Your task to perform on an android device: Search for bose soundlink on newegg, select the first entry, add it to the cart, then select checkout. Image 0: 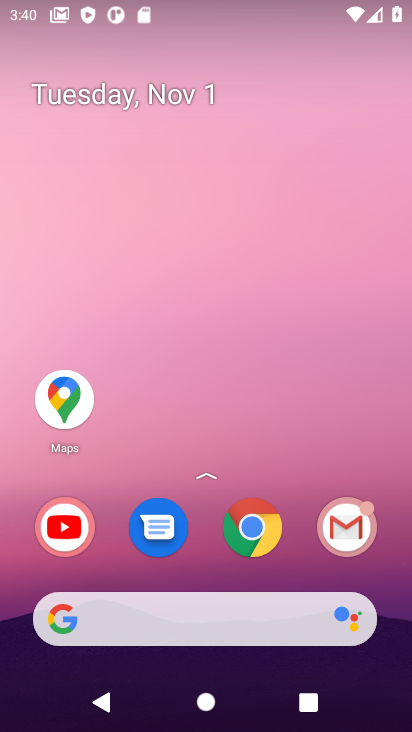
Step 0: click (182, 607)
Your task to perform on an android device: Search for bose soundlink on newegg, select the first entry, add it to the cart, then select checkout. Image 1: 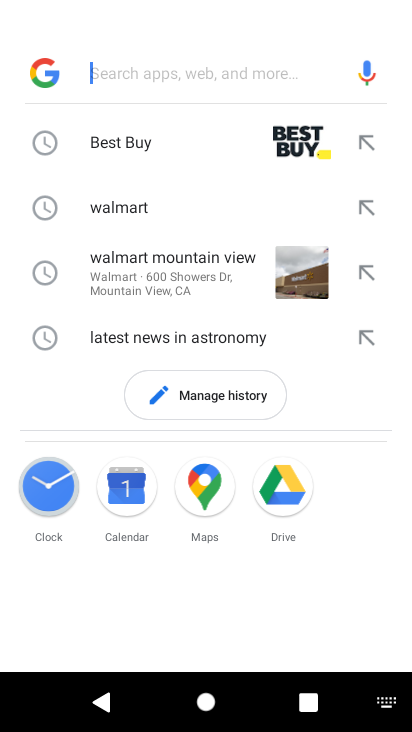
Step 1: type "newegg"
Your task to perform on an android device: Search for bose soundlink on newegg, select the first entry, add it to the cart, then select checkout. Image 2: 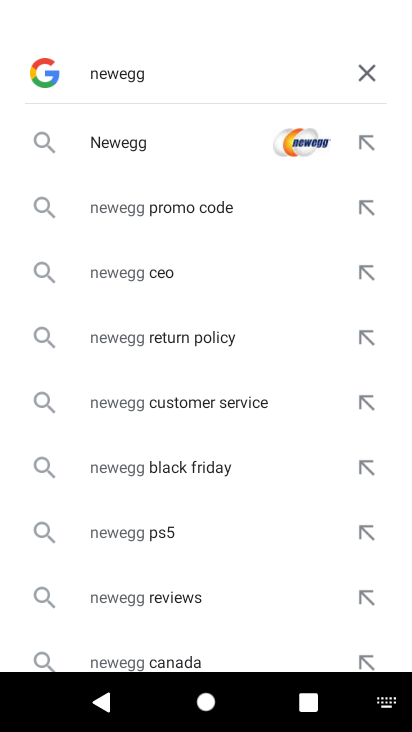
Step 2: click (150, 156)
Your task to perform on an android device: Search for bose soundlink on newegg, select the first entry, add it to the cart, then select checkout. Image 3: 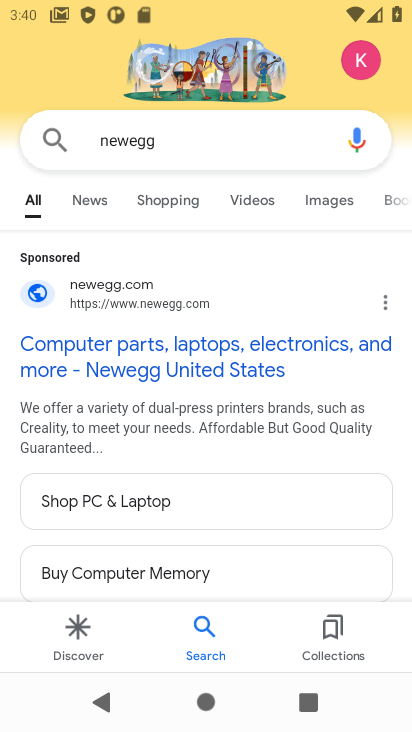
Step 3: click (109, 296)
Your task to perform on an android device: Search for bose soundlink on newegg, select the first entry, add it to the cart, then select checkout. Image 4: 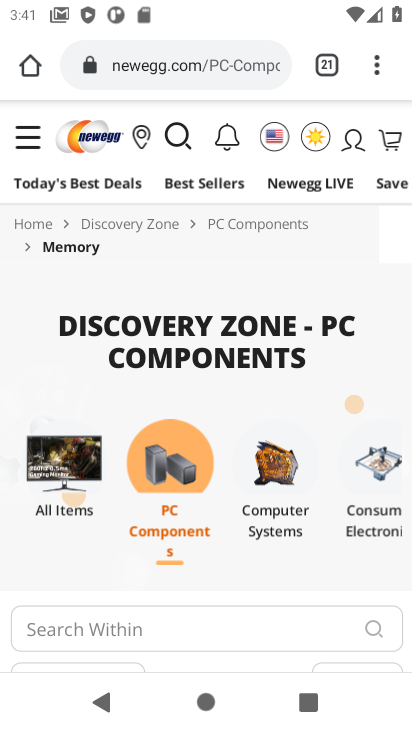
Step 4: click (177, 132)
Your task to perform on an android device: Search for bose soundlink on newegg, select the first entry, add it to the cart, then select checkout. Image 5: 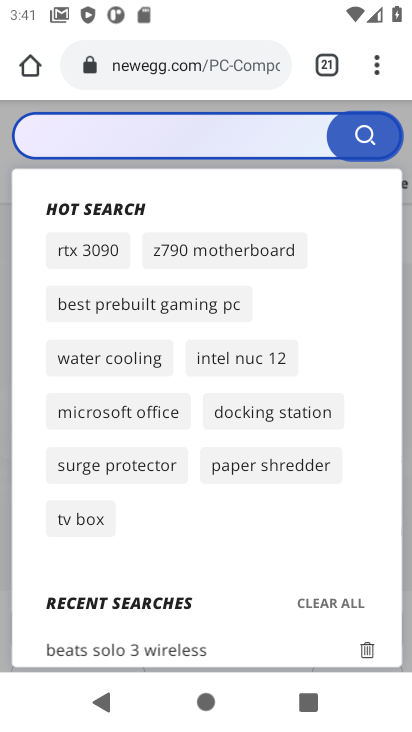
Step 5: click (251, 128)
Your task to perform on an android device: Search for bose soundlink on newegg, select the first entry, add it to the cart, then select checkout. Image 6: 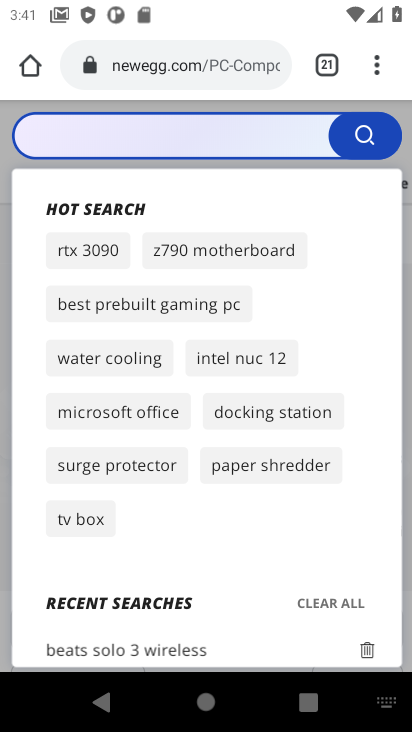
Step 6: type " bose soundlink "
Your task to perform on an android device: Search for bose soundlink on newegg, select the first entry, add it to the cart, then select checkout. Image 7: 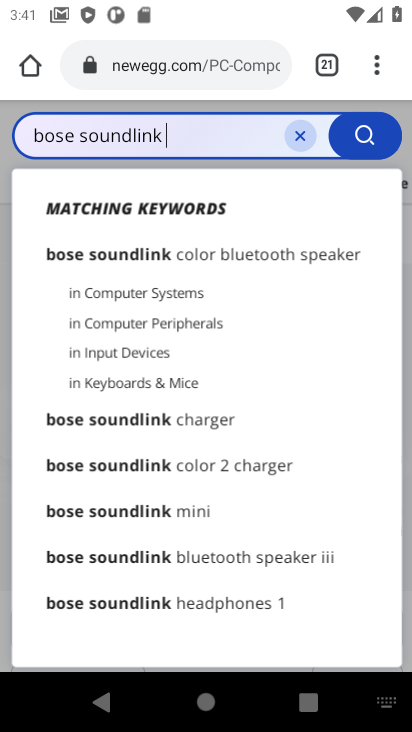
Step 7: click (166, 428)
Your task to perform on an android device: Search for bose soundlink on newegg, select the first entry, add it to the cart, then select checkout. Image 8: 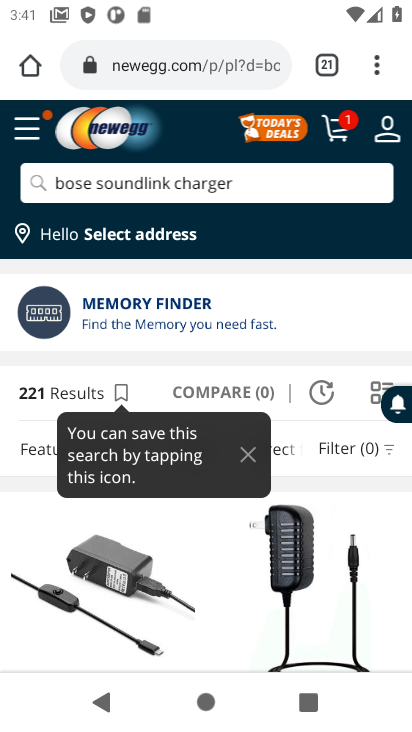
Step 8: click (202, 563)
Your task to perform on an android device: Search for bose soundlink on newegg, select the first entry, add it to the cart, then select checkout. Image 9: 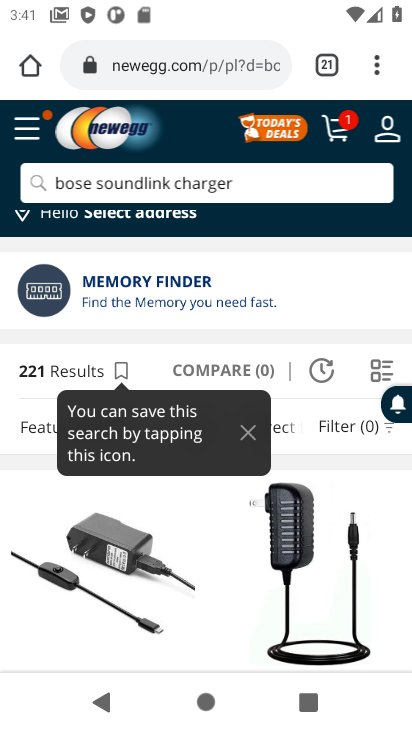
Step 9: click (118, 543)
Your task to perform on an android device: Search for bose soundlink on newegg, select the first entry, add it to the cart, then select checkout. Image 10: 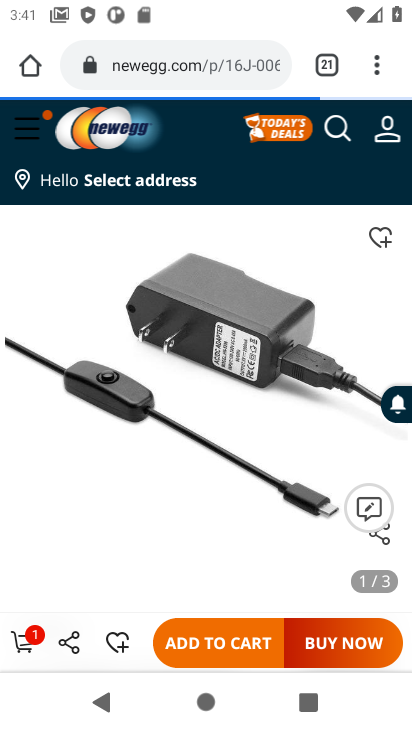
Step 10: click (206, 644)
Your task to perform on an android device: Search for bose soundlink on newegg, select the first entry, add it to the cart, then select checkout. Image 11: 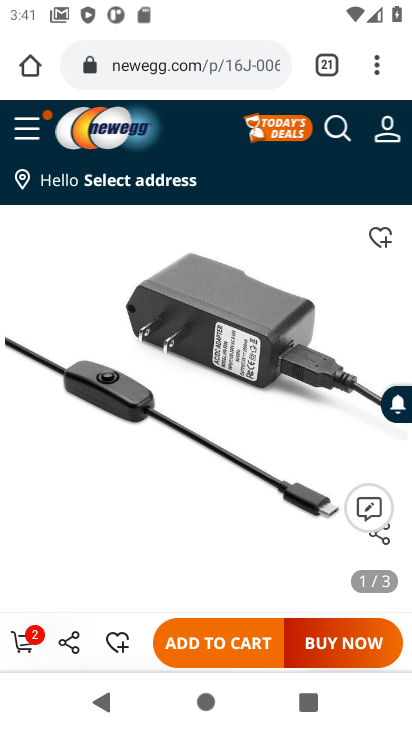
Step 11: click (22, 645)
Your task to perform on an android device: Search for bose soundlink on newegg, select the first entry, add it to the cart, then select checkout. Image 12: 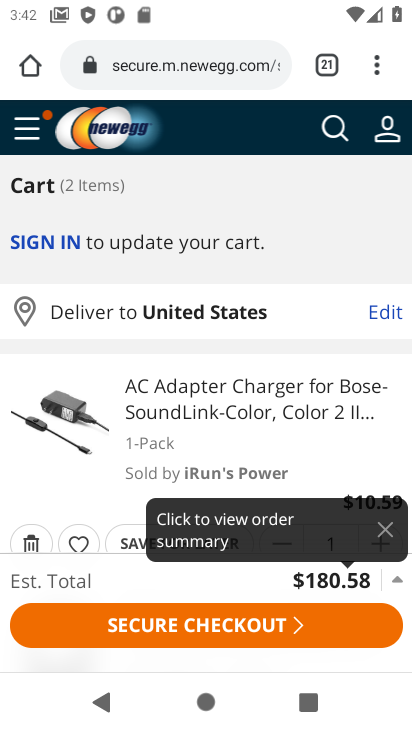
Step 12: click (222, 622)
Your task to perform on an android device: Search for bose soundlink on newegg, select the first entry, add it to the cart, then select checkout. Image 13: 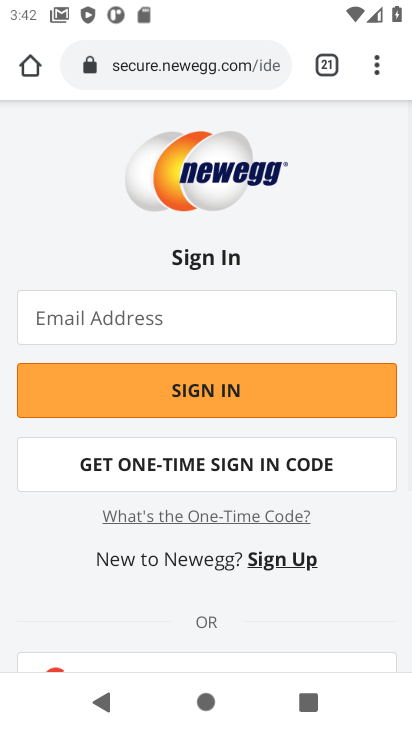
Step 13: click (224, 585)
Your task to perform on an android device: Search for bose soundlink on newegg, select the first entry, add it to the cart, then select checkout. Image 14: 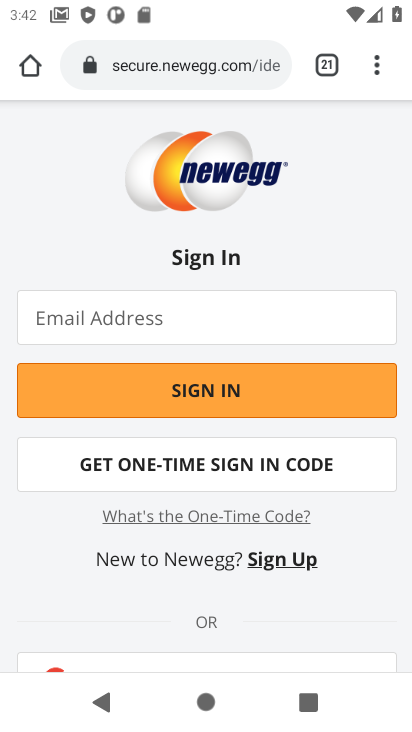
Step 14: task complete